Your task to perform on an android device: turn on the 24-hour format for clock Image 0: 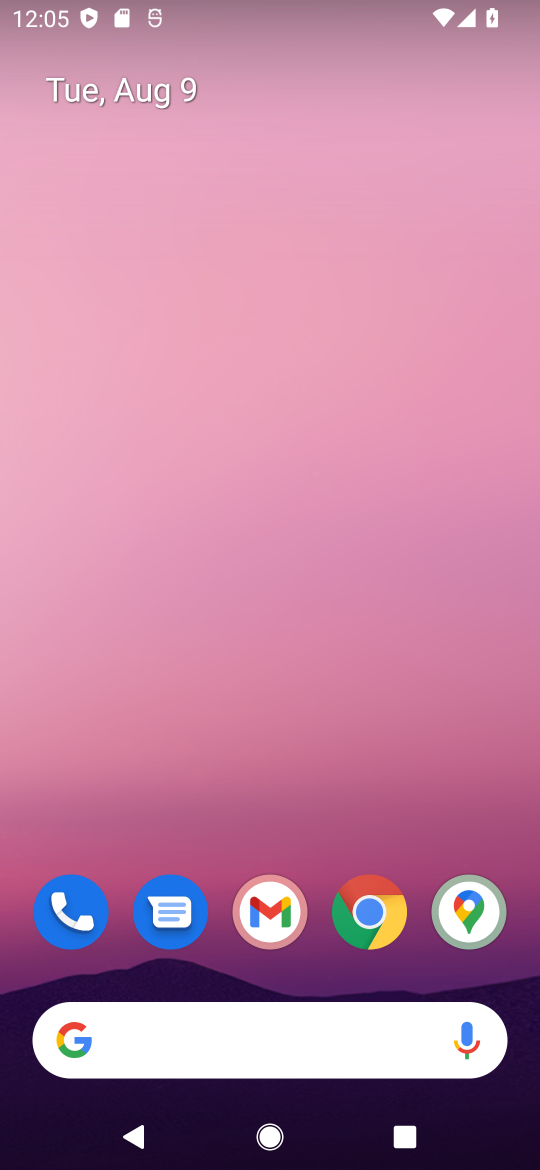
Step 0: drag from (313, 1017) to (312, 377)
Your task to perform on an android device: turn on the 24-hour format for clock Image 1: 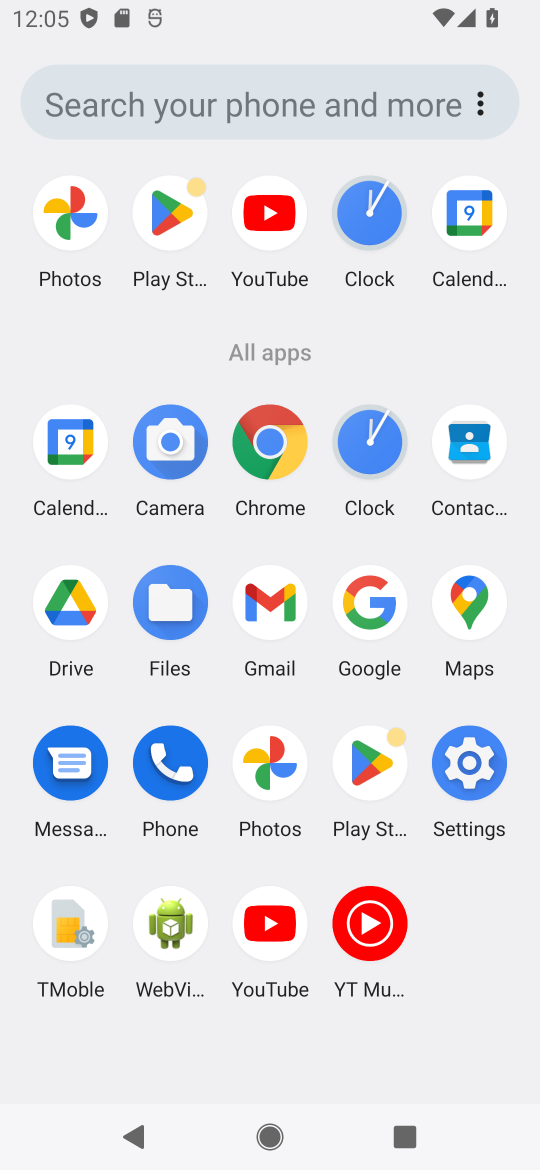
Step 1: click (368, 459)
Your task to perform on an android device: turn on the 24-hour format for clock Image 2: 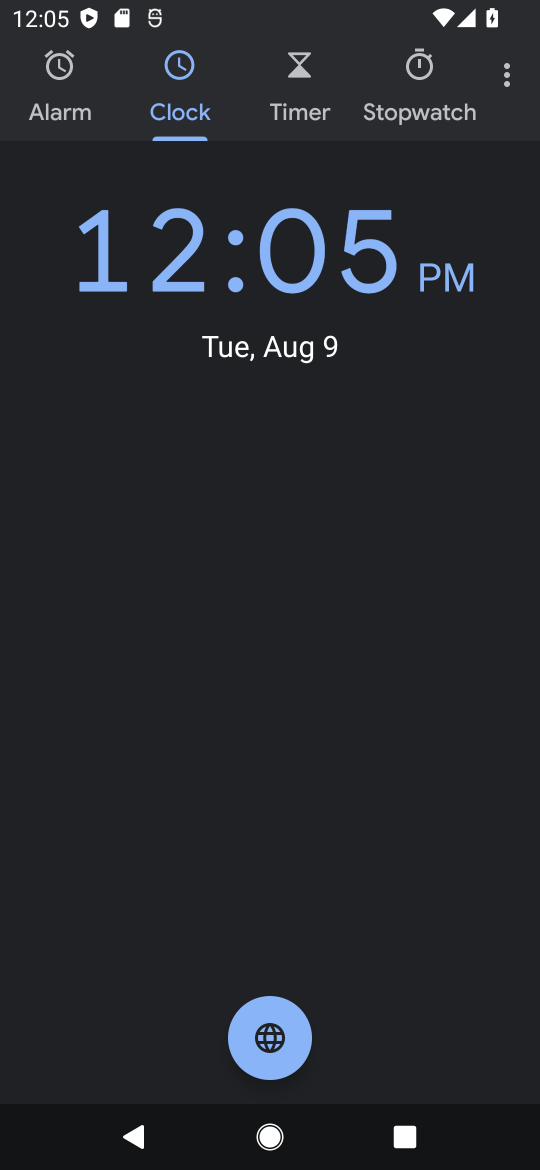
Step 2: click (505, 76)
Your task to perform on an android device: turn on the 24-hour format for clock Image 3: 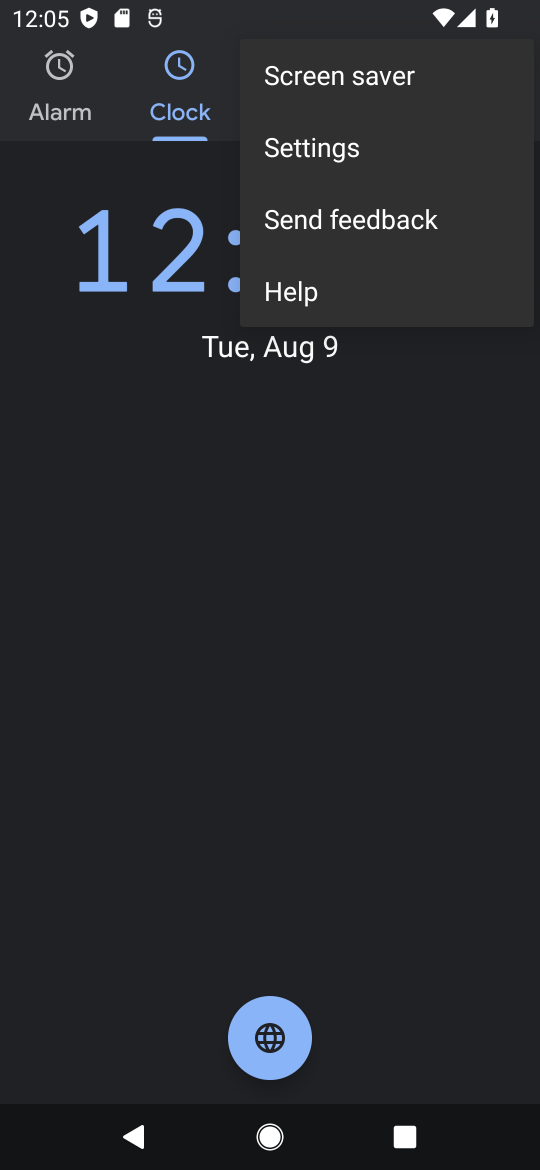
Step 3: click (319, 156)
Your task to perform on an android device: turn on the 24-hour format for clock Image 4: 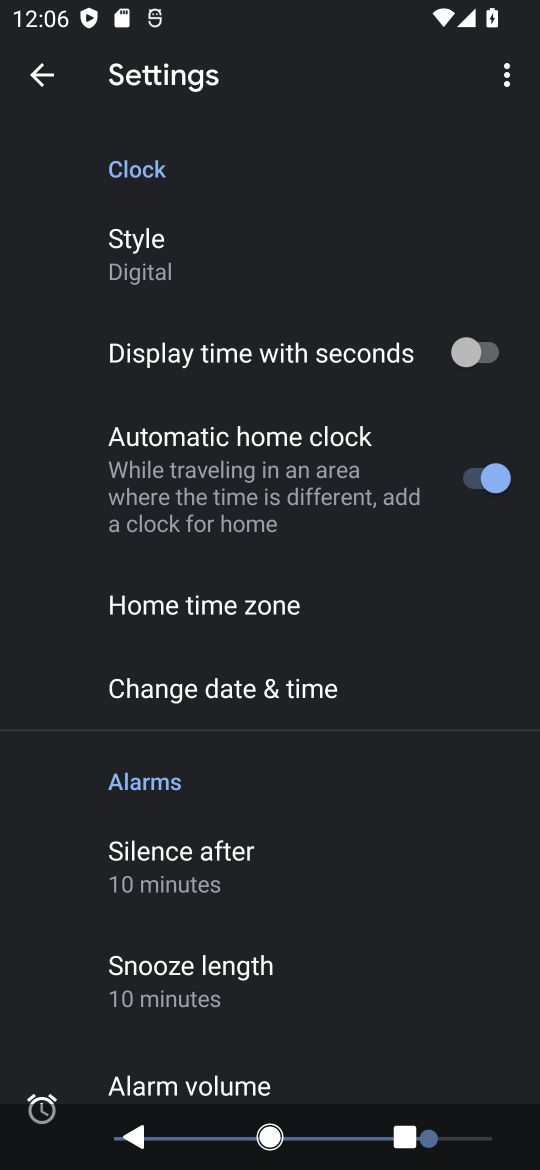
Step 4: click (241, 675)
Your task to perform on an android device: turn on the 24-hour format for clock Image 5: 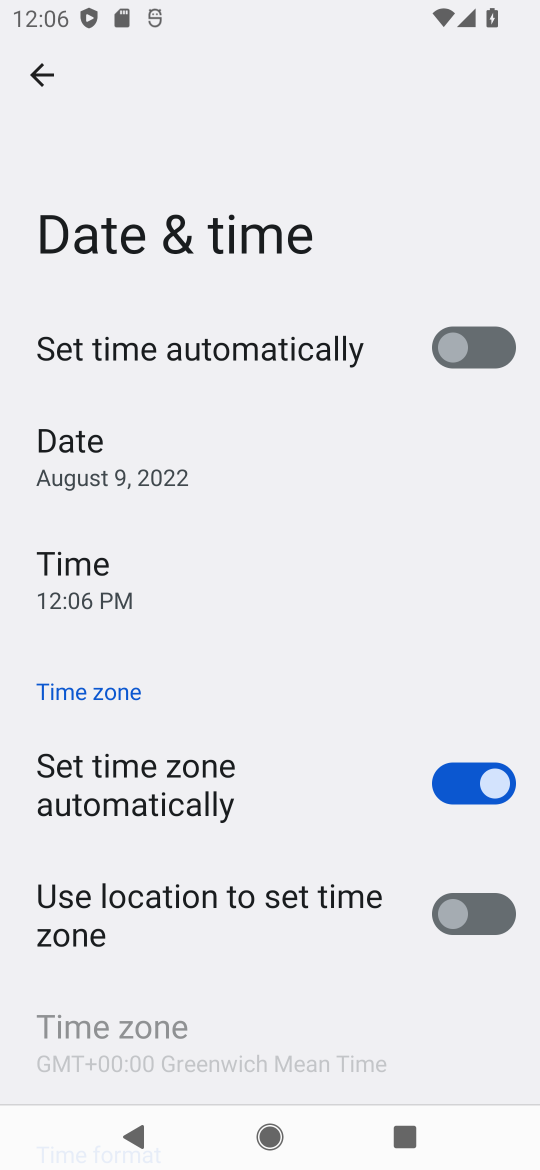
Step 5: drag from (185, 1018) to (186, 398)
Your task to perform on an android device: turn on the 24-hour format for clock Image 6: 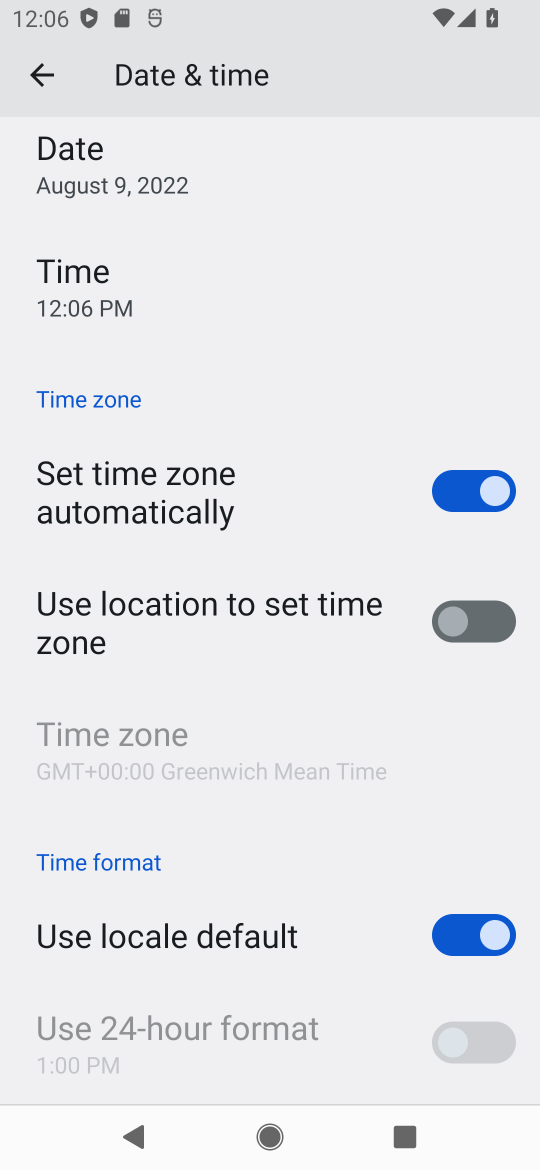
Step 6: click (469, 934)
Your task to perform on an android device: turn on the 24-hour format for clock Image 7: 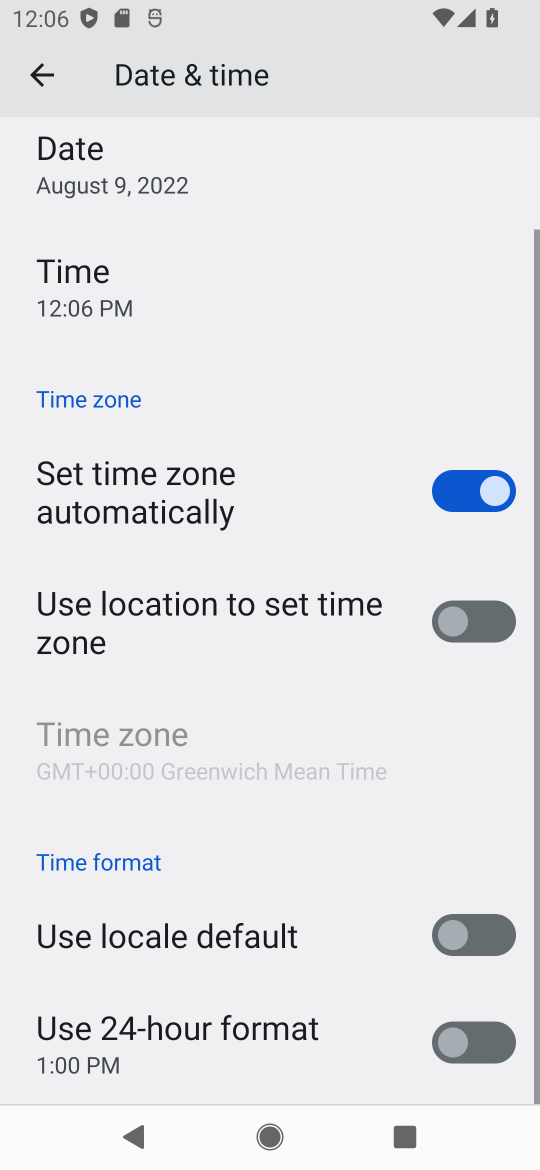
Step 7: click (488, 1039)
Your task to perform on an android device: turn on the 24-hour format for clock Image 8: 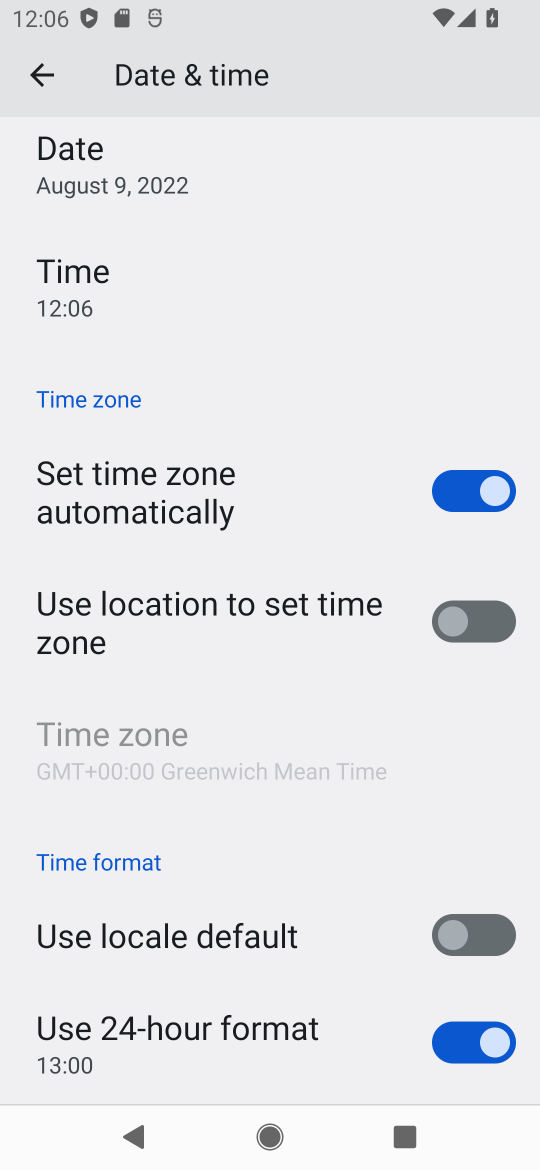
Step 8: task complete